Your task to perform on an android device: Open Google Chrome and click the shortcut for Amazon.com Image 0: 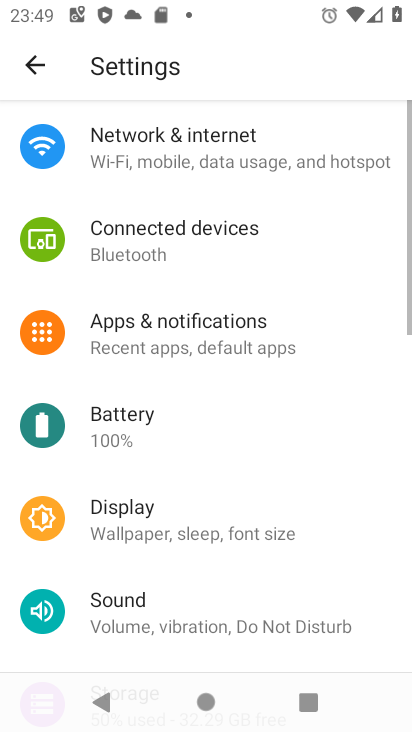
Step 0: press home button
Your task to perform on an android device: Open Google Chrome and click the shortcut for Amazon.com Image 1: 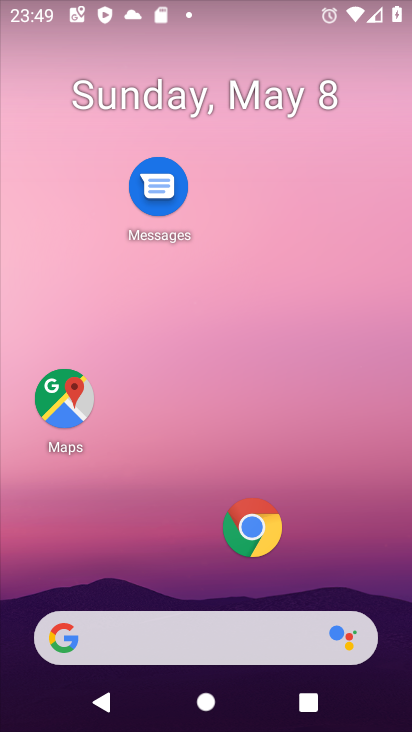
Step 1: click (253, 527)
Your task to perform on an android device: Open Google Chrome and click the shortcut for Amazon.com Image 2: 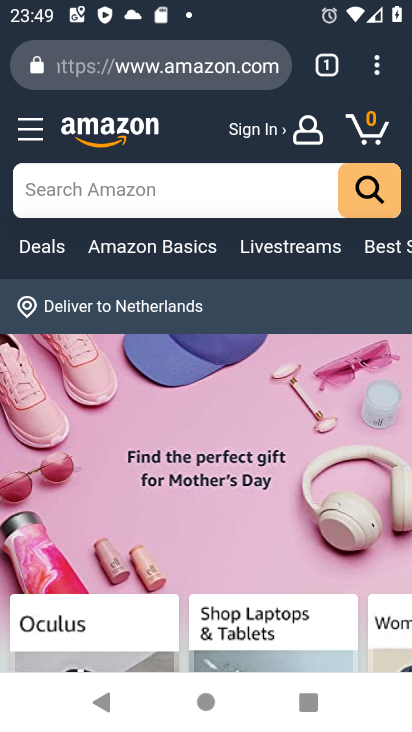
Step 2: press back button
Your task to perform on an android device: Open Google Chrome and click the shortcut for Amazon.com Image 3: 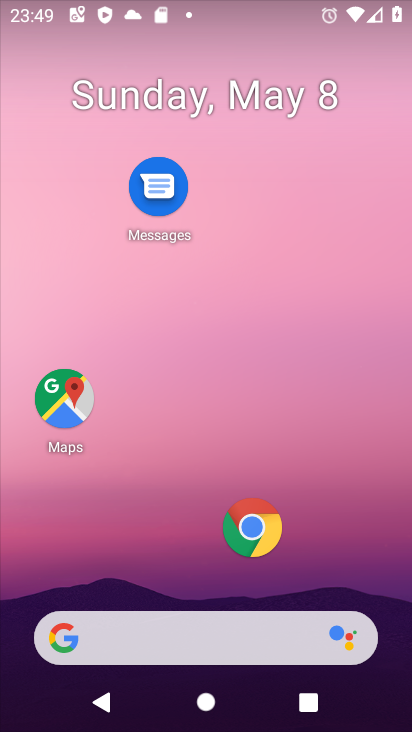
Step 3: click (249, 550)
Your task to perform on an android device: Open Google Chrome and click the shortcut for Amazon.com Image 4: 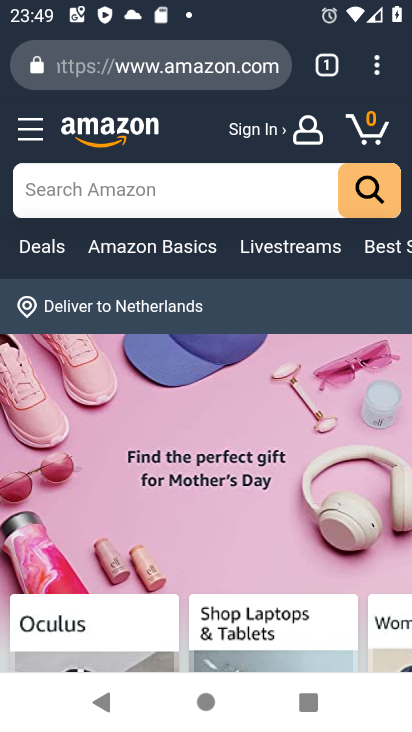
Step 4: click (331, 62)
Your task to perform on an android device: Open Google Chrome and click the shortcut for Amazon.com Image 5: 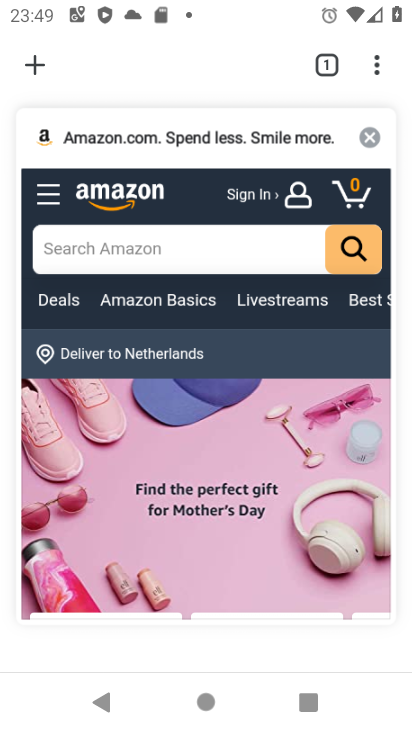
Step 5: click (31, 65)
Your task to perform on an android device: Open Google Chrome and click the shortcut for Amazon.com Image 6: 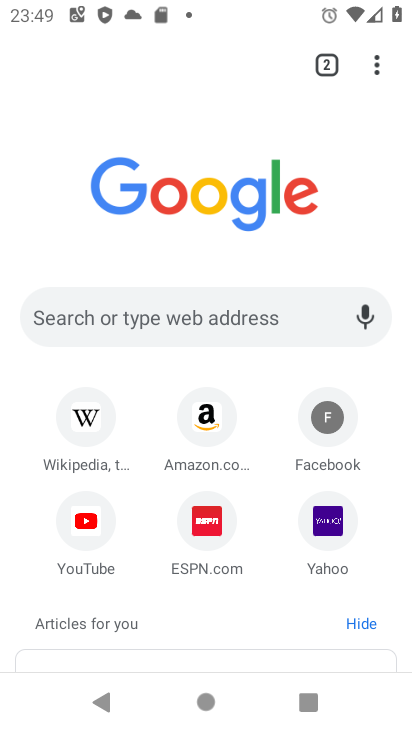
Step 6: click (213, 415)
Your task to perform on an android device: Open Google Chrome and click the shortcut for Amazon.com Image 7: 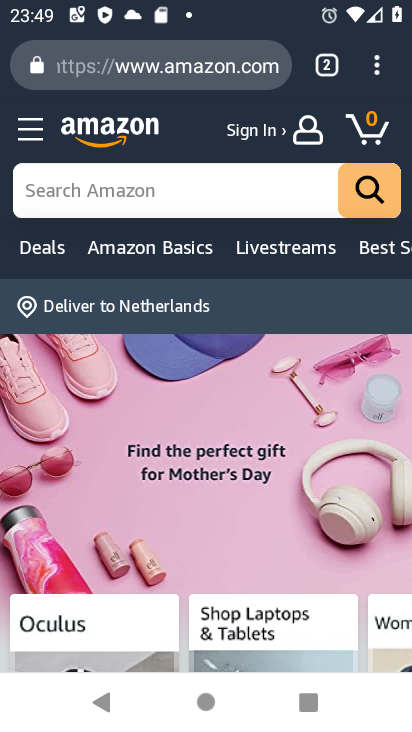
Step 7: task complete